Your task to perform on an android device: turn vacation reply on in the gmail app Image 0: 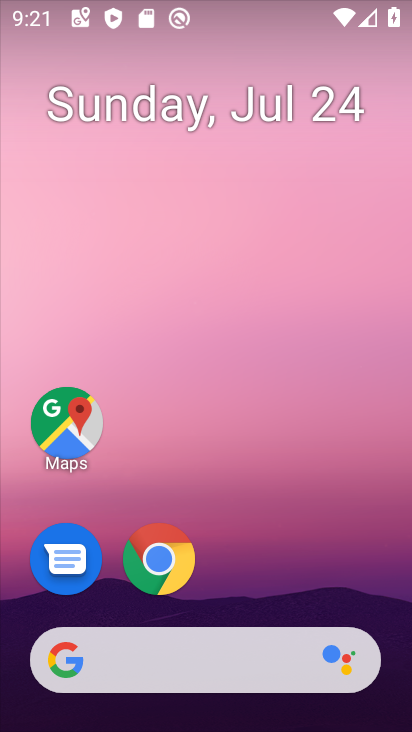
Step 0: drag from (233, 540) to (258, 36)
Your task to perform on an android device: turn vacation reply on in the gmail app Image 1: 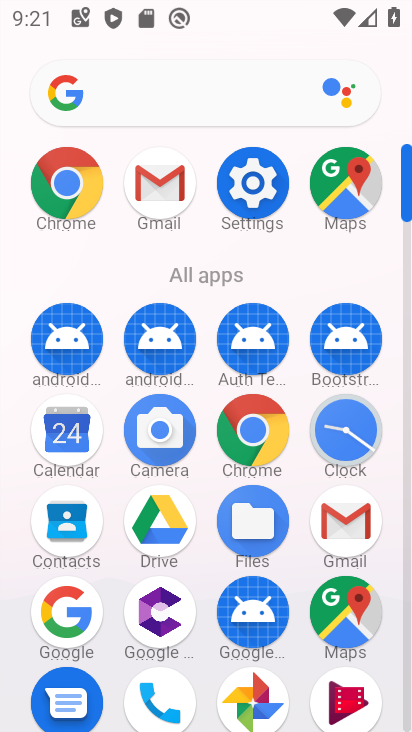
Step 1: click (162, 203)
Your task to perform on an android device: turn vacation reply on in the gmail app Image 2: 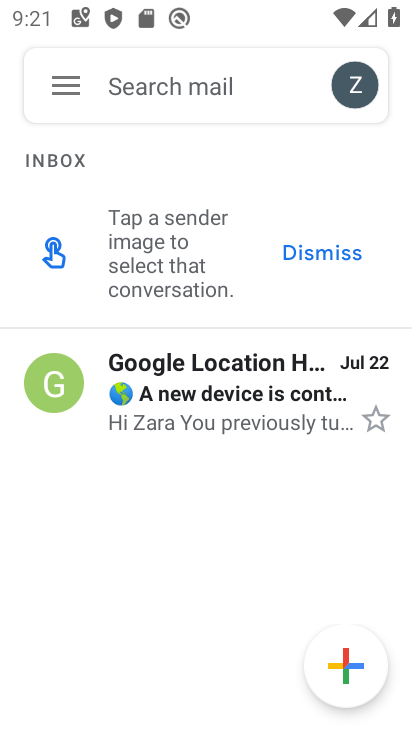
Step 2: click (45, 86)
Your task to perform on an android device: turn vacation reply on in the gmail app Image 3: 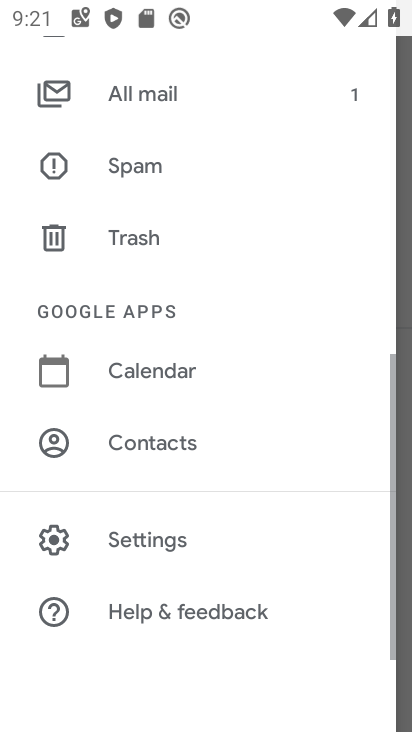
Step 3: click (153, 540)
Your task to perform on an android device: turn vacation reply on in the gmail app Image 4: 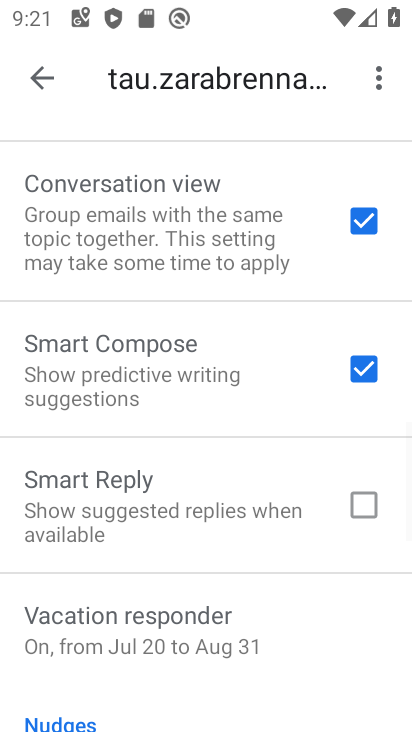
Step 4: click (161, 626)
Your task to perform on an android device: turn vacation reply on in the gmail app Image 5: 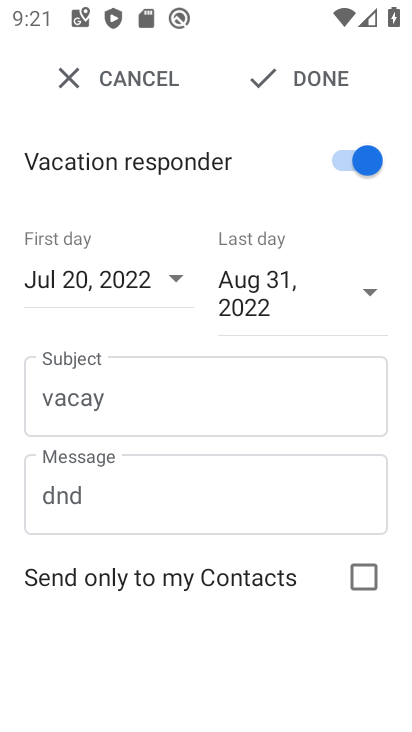
Step 5: task complete